Your task to perform on an android device: install app "Adobe Express: Graphic Design" Image 0: 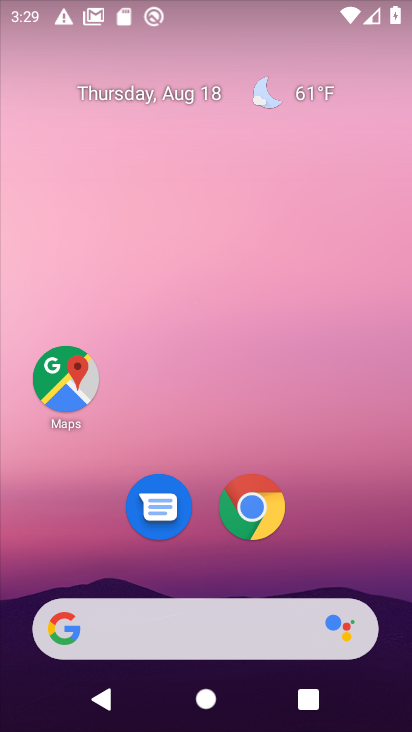
Step 0: drag from (204, 492) to (267, 27)
Your task to perform on an android device: install app "Adobe Express: Graphic Design" Image 1: 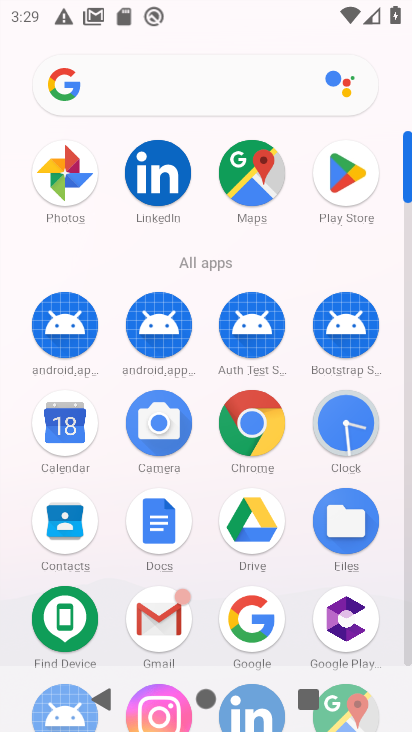
Step 1: click (337, 184)
Your task to perform on an android device: install app "Adobe Express: Graphic Design" Image 2: 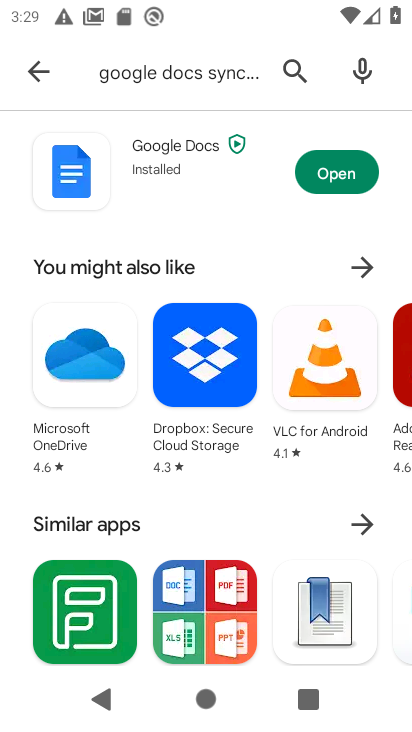
Step 2: click (295, 66)
Your task to perform on an android device: install app "Adobe Express: Graphic Design" Image 3: 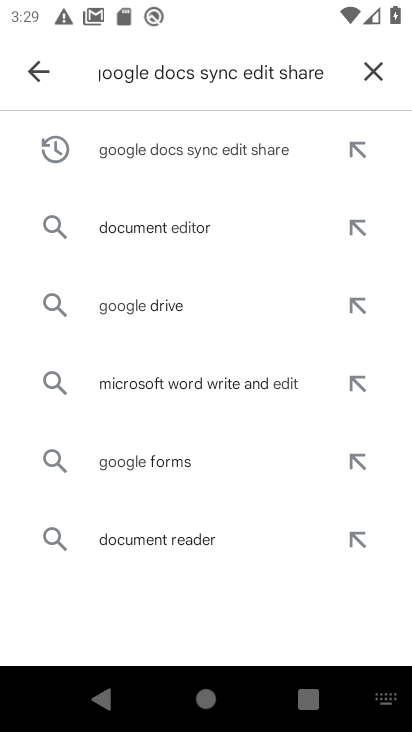
Step 3: click (374, 68)
Your task to perform on an android device: install app "Adobe Express: Graphic Design" Image 4: 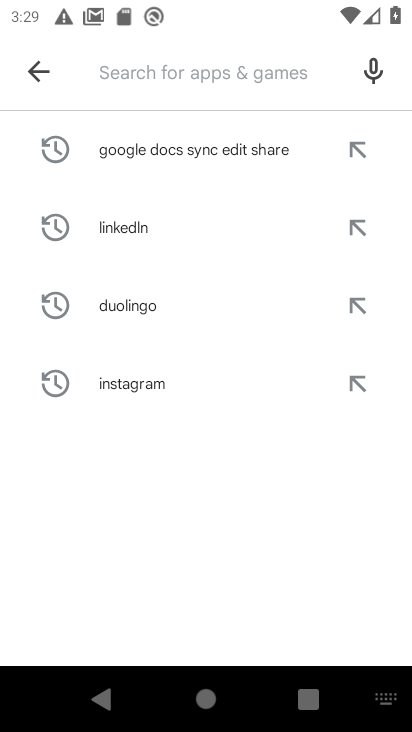
Step 4: click (182, 74)
Your task to perform on an android device: install app "Adobe Express: Graphic Design" Image 5: 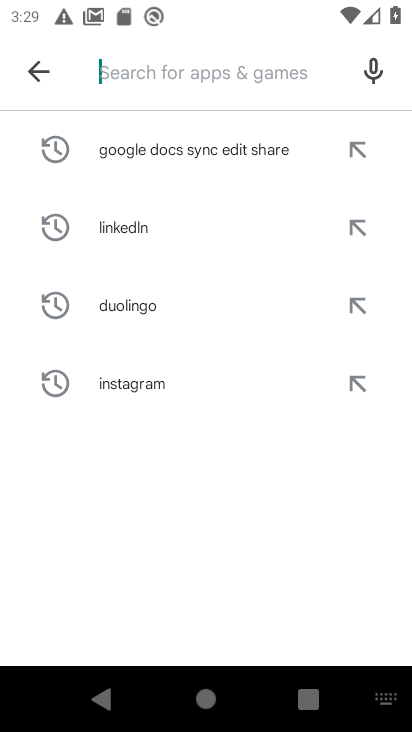
Step 5: type "Adobe Express: Graphic Design"
Your task to perform on an android device: install app "Adobe Express: Graphic Design" Image 6: 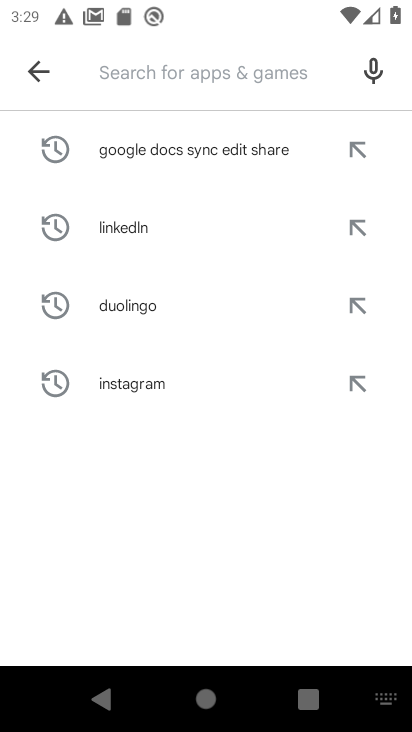
Step 6: click (237, 501)
Your task to perform on an android device: install app "Adobe Express: Graphic Design" Image 7: 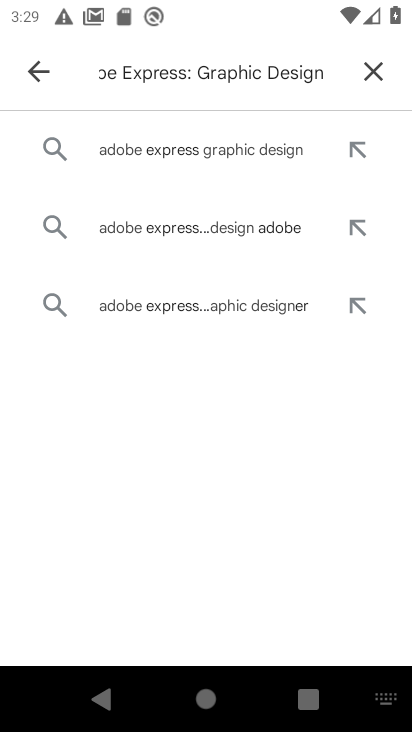
Step 7: click (189, 143)
Your task to perform on an android device: install app "Adobe Express: Graphic Design" Image 8: 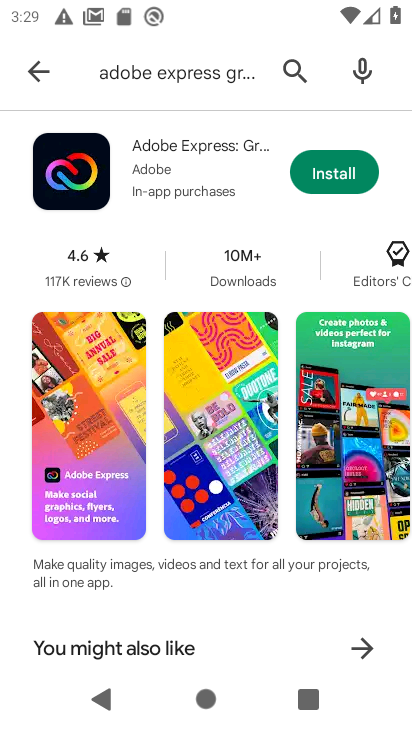
Step 8: click (318, 168)
Your task to perform on an android device: install app "Adobe Express: Graphic Design" Image 9: 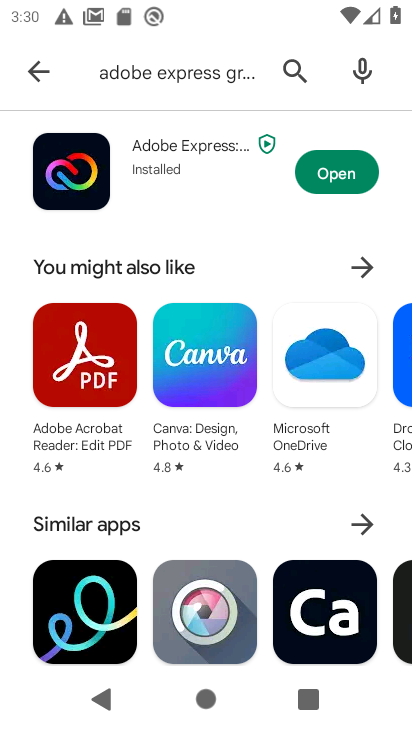
Step 9: task complete